Your task to perform on an android device: Open Google Maps Image 0: 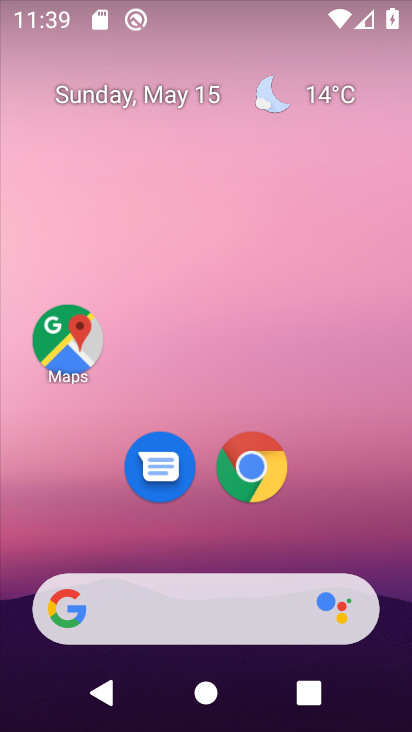
Step 0: drag from (209, 545) to (198, 96)
Your task to perform on an android device: Open Google Maps Image 1: 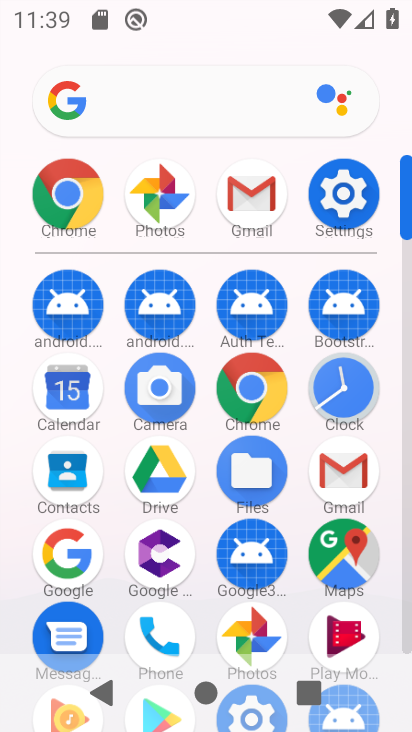
Step 1: click (343, 548)
Your task to perform on an android device: Open Google Maps Image 2: 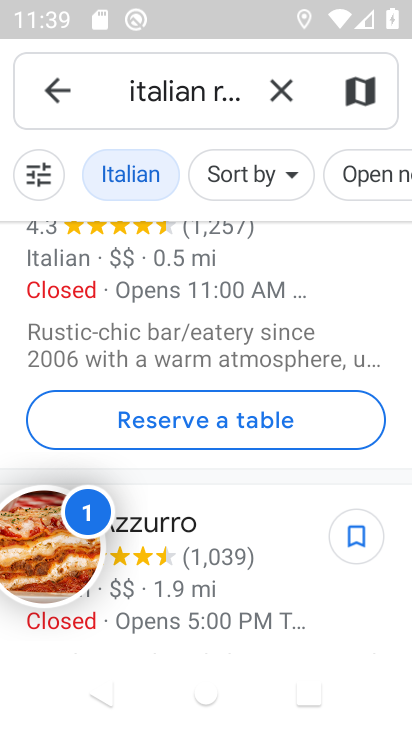
Step 2: drag from (231, 574) to (262, 245)
Your task to perform on an android device: Open Google Maps Image 3: 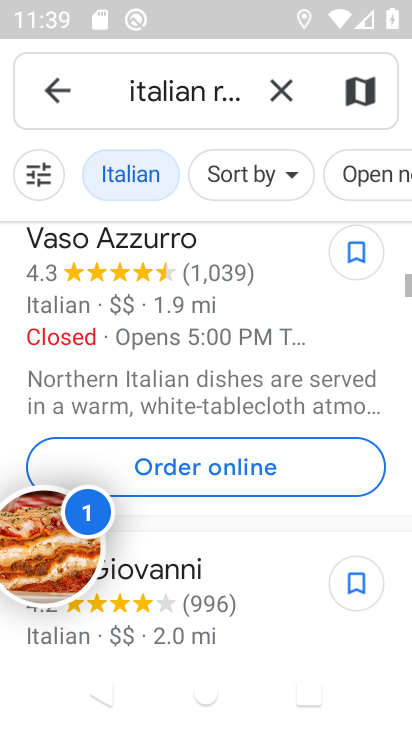
Step 3: click (58, 94)
Your task to perform on an android device: Open Google Maps Image 4: 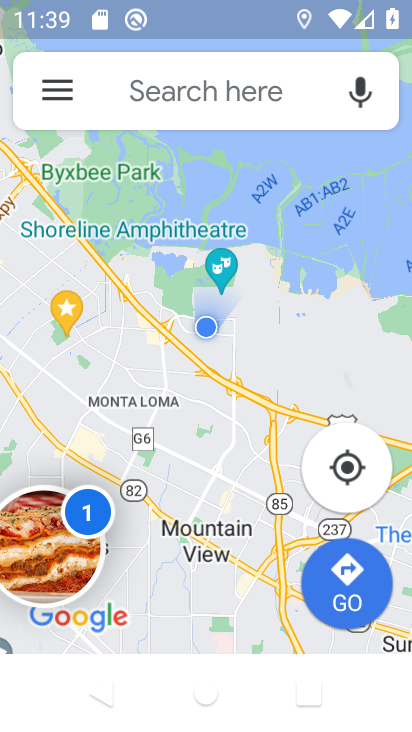
Step 4: task complete